Your task to perform on an android device: change keyboard looks Image 0: 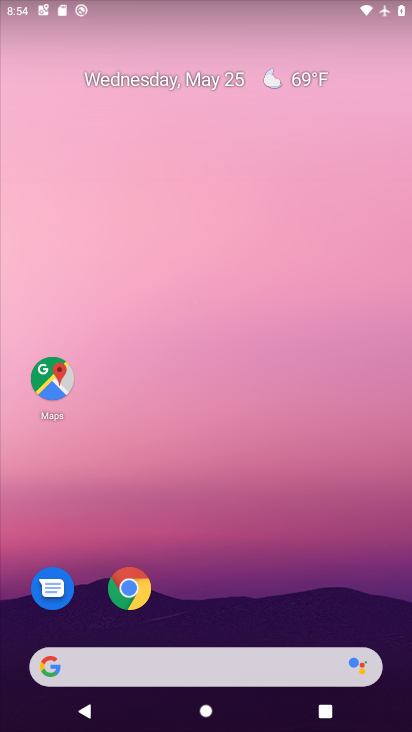
Step 0: drag from (331, 620) to (353, 147)
Your task to perform on an android device: change keyboard looks Image 1: 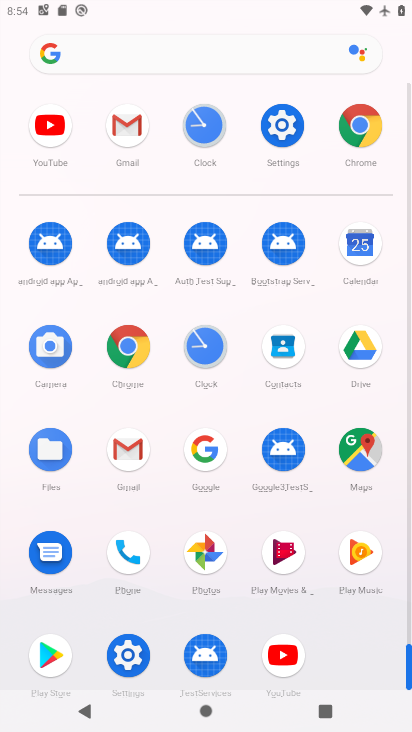
Step 1: click (287, 131)
Your task to perform on an android device: change keyboard looks Image 2: 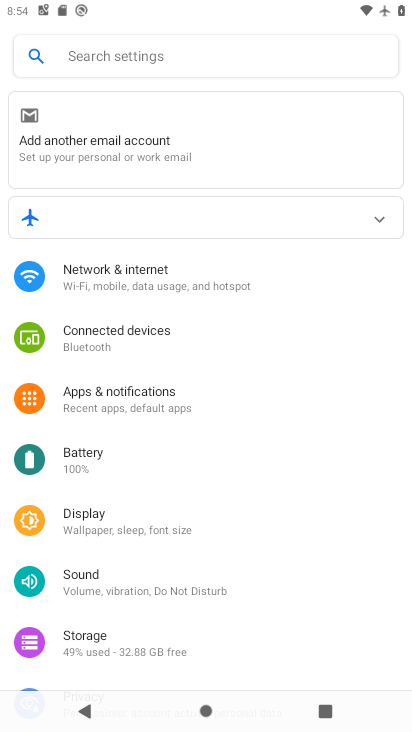
Step 2: drag from (291, 505) to (296, 396)
Your task to perform on an android device: change keyboard looks Image 3: 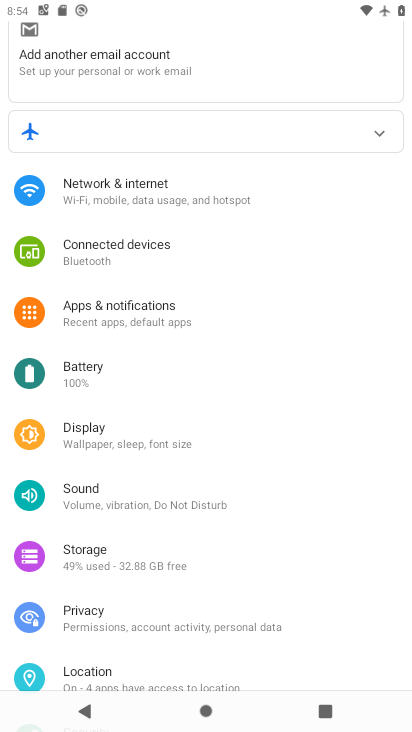
Step 3: drag from (329, 546) to (323, 444)
Your task to perform on an android device: change keyboard looks Image 4: 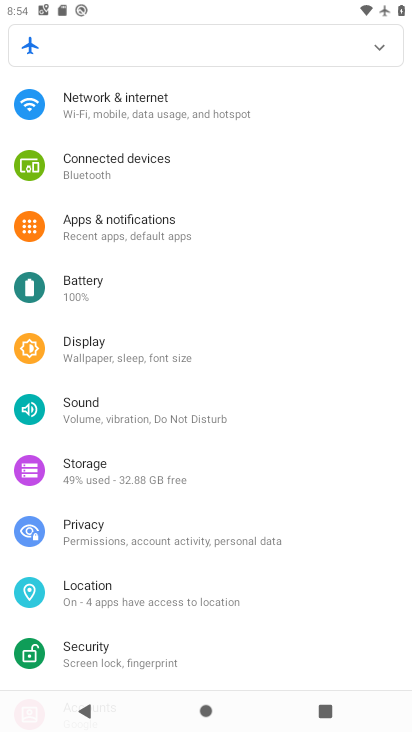
Step 4: drag from (337, 581) to (342, 471)
Your task to perform on an android device: change keyboard looks Image 5: 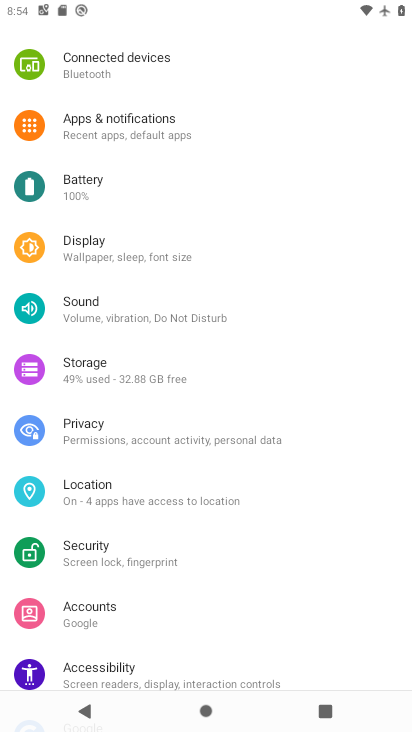
Step 5: drag from (324, 613) to (326, 478)
Your task to perform on an android device: change keyboard looks Image 6: 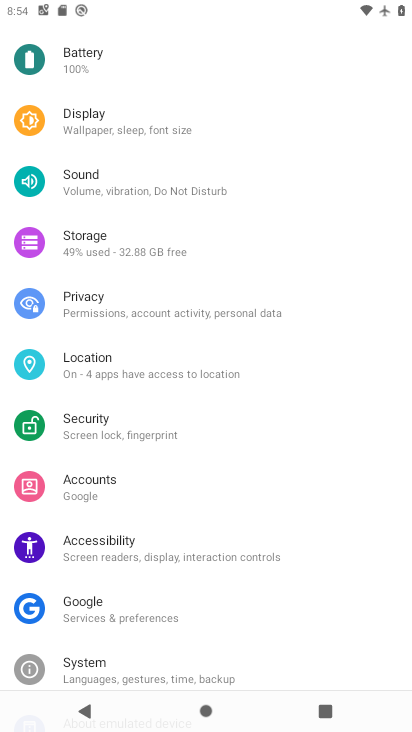
Step 6: drag from (331, 617) to (343, 465)
Your task to perform on an android device: change keyboard looks Image 7: 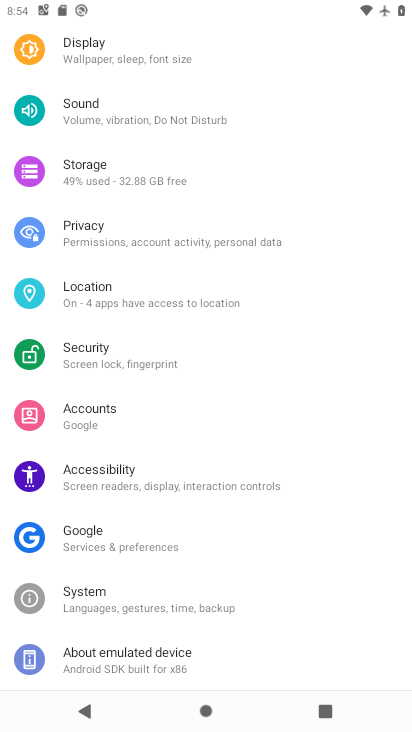
Step 7: click (229, 604)
Your task to perform on an android device: change keyboard looks Image 8: 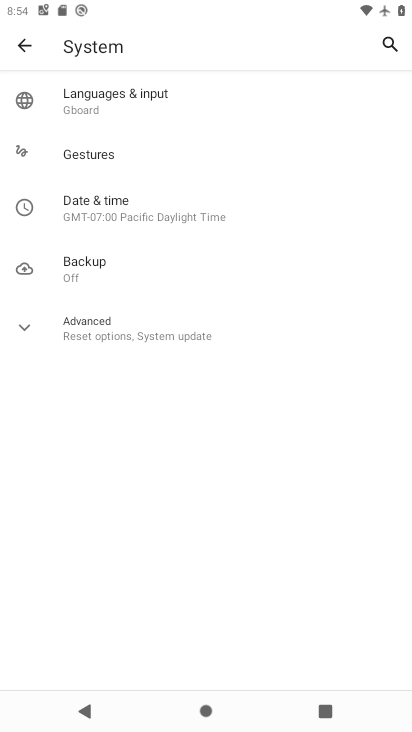
Step 8: click (162, 103)
Your task to perform on an android device: change keyboard looks Image 9: 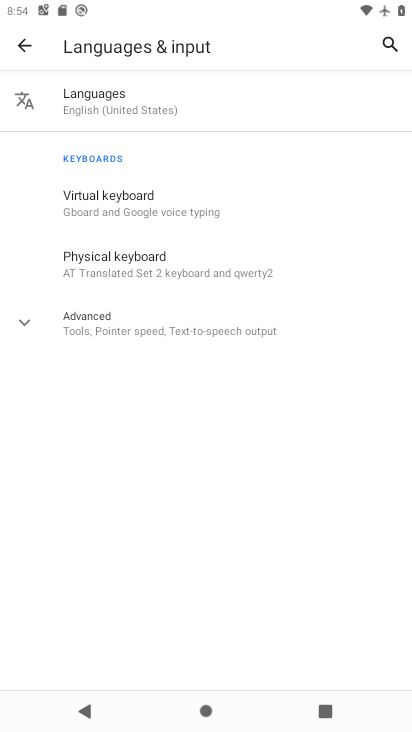
Step 9: click (183, 216)
Your task to perform on an android device: change keyboard looks Image 10: 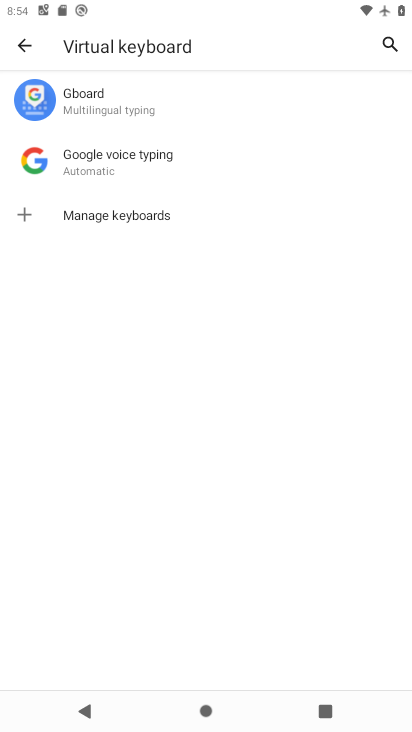
Step 10: click (179, 112)
Your task to perform on an android device: change keyboard looks Image 11: 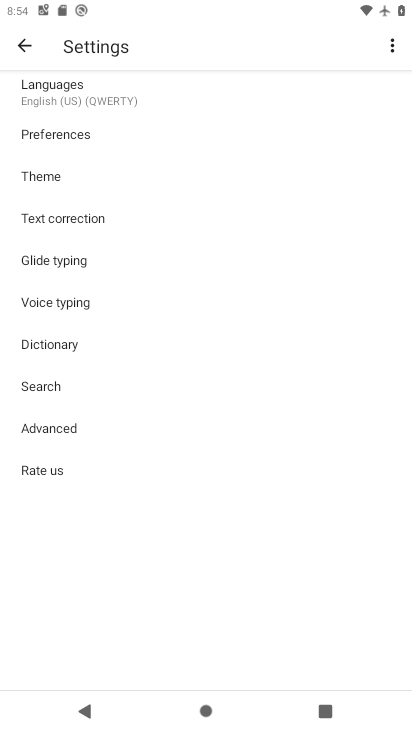
Step 11: click (66, 183)
Your task to perform on an android device: change keyboard looks Image 12: 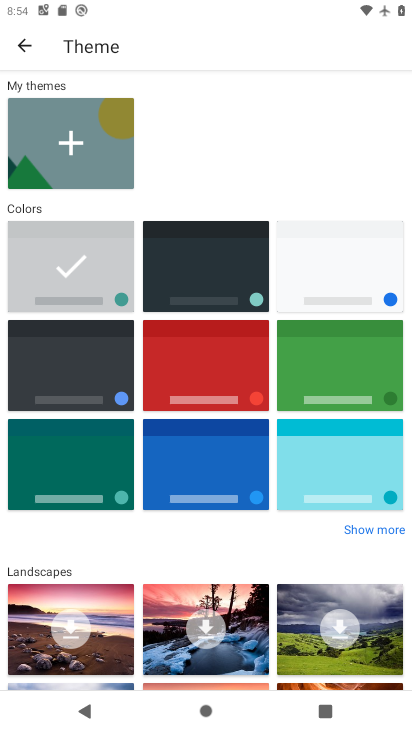
Step 12: click (214, 381)
Your task to perform on an android device: change keyboard looks Image 13: 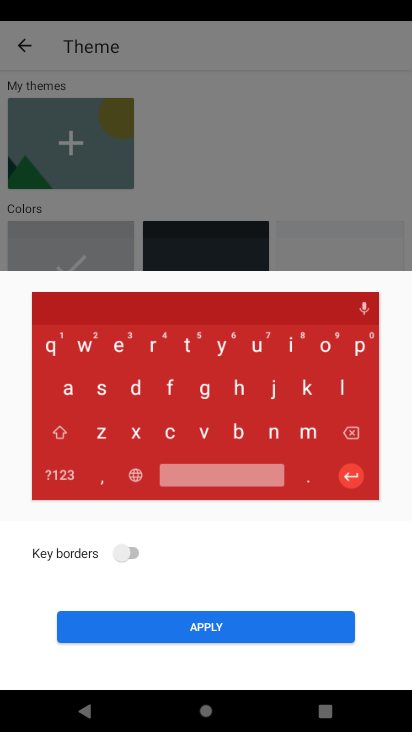
Step 13: click (259, 626)
Your task to perform on an android device: change keyboard looks Image 14: 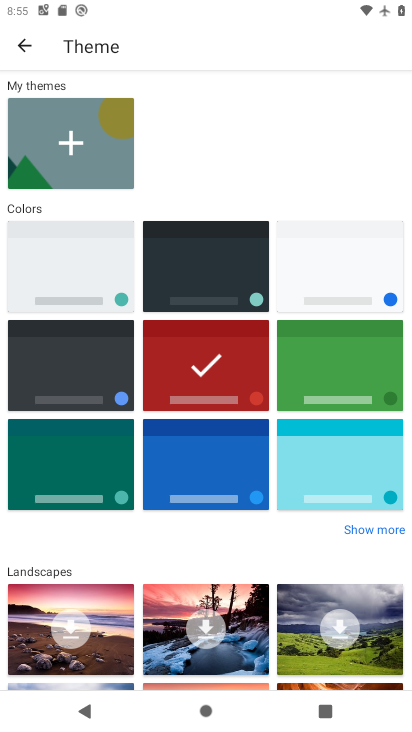
Step 14: task complete